Your task to perform on an android device: see sites visited before in the chrome app Image 0: 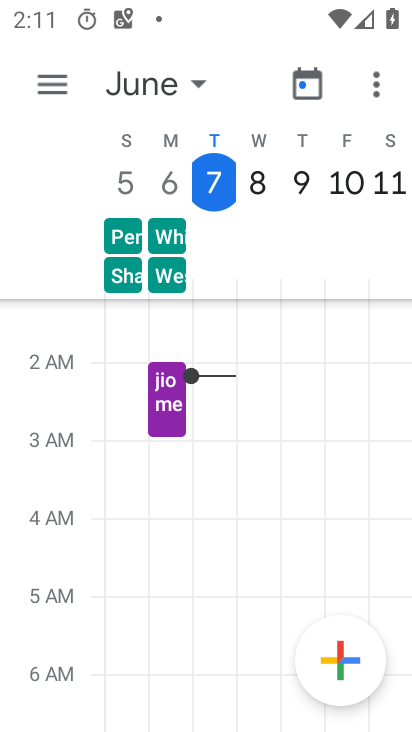
Step 0: press home button
Your task to perform on an android device: see sites visited before in the chrome app Image 1: 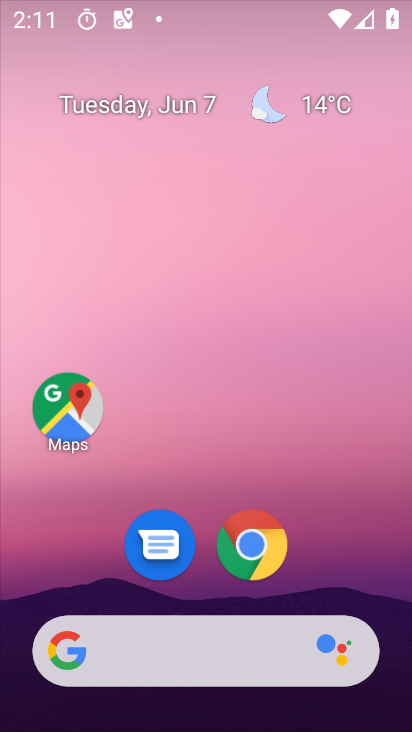
Step 1: click (252, 563)
Your task to perform on an android device: see sites visited before in the chrome app Image 2: 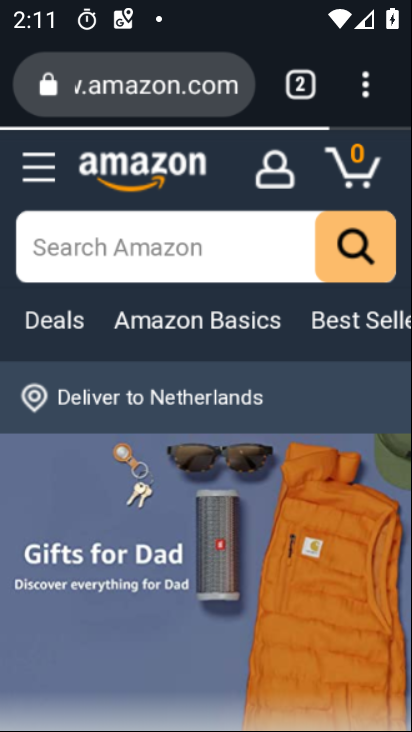
Step 2: click (372, 85)
Your task to perform on an android device: see sites visited before in the chrome app Image 3: 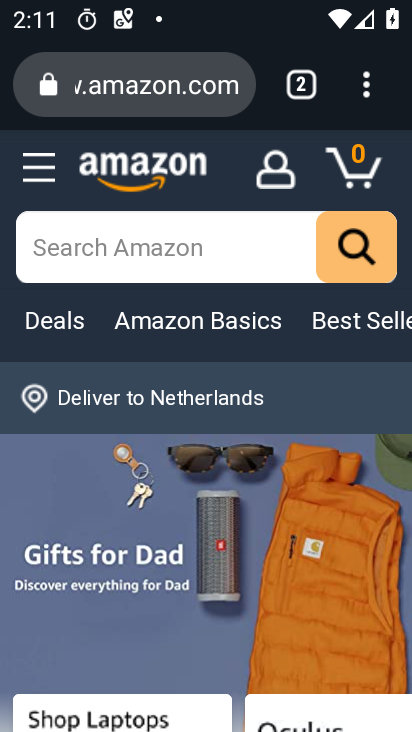
Step 3: click (364, 86)
Your task to perform on an android device: see sites visited before in the chrome app Image 4: 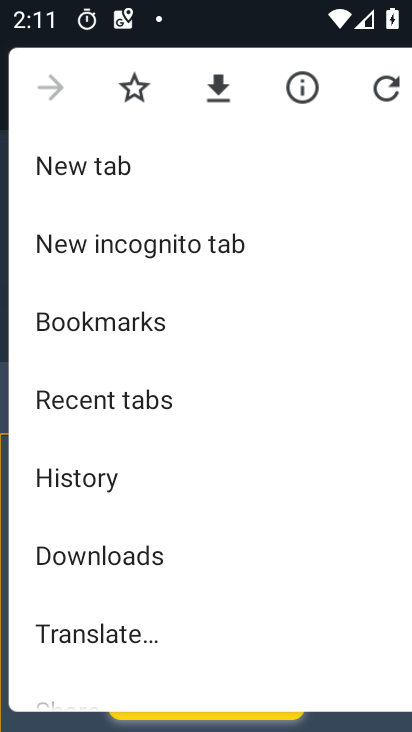
Step 4: click (185, 474)
Your task to perform on an android device: see sites visited before in the chrome app Image 5: 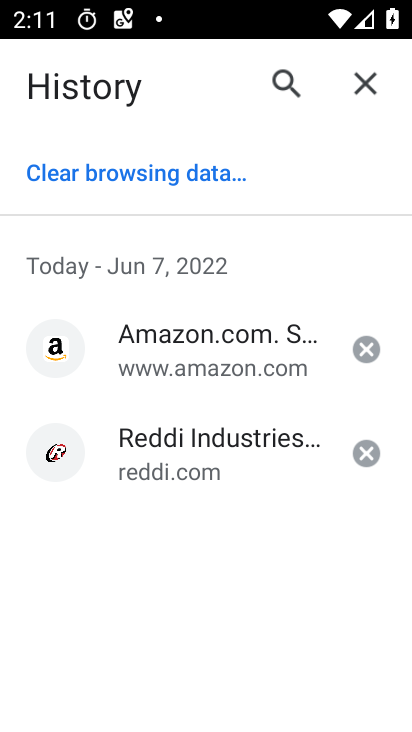
Step 5: task complete